Your task to perform on an android device: Toggle the flashlight Image 0: 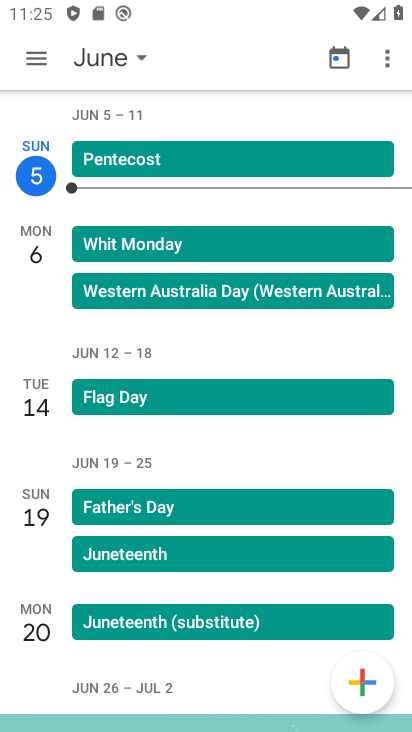
Step 0: press home button
Your task to perform on an android device: Toggle the flashlight Image 1: 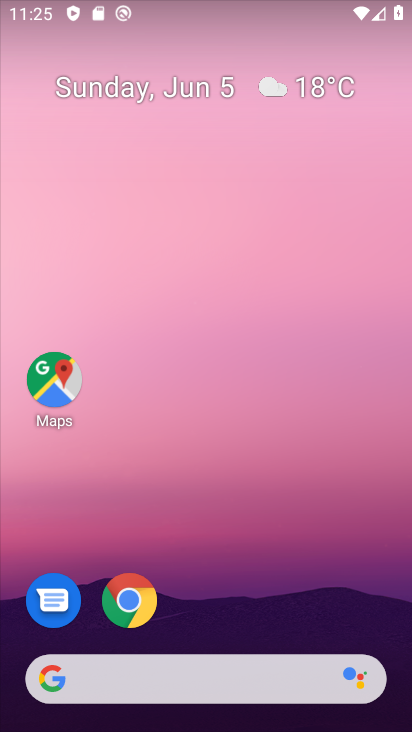
Step 1: drag from (187, 4) to (141, 454)
Your task to perform on an android device: Toggle the flashlight Image 2: 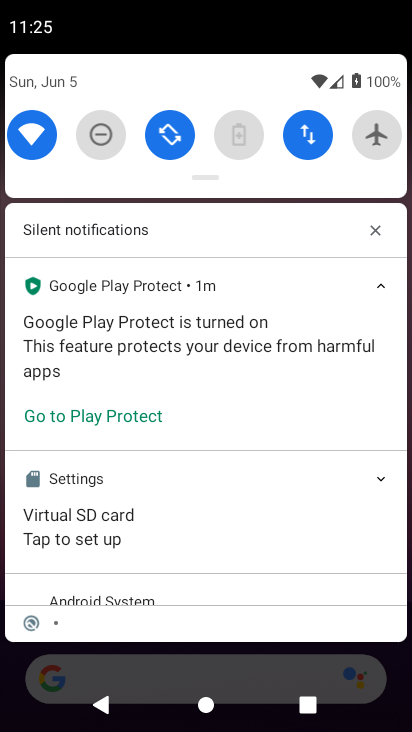
Step 2: drag from (208, 187) to (250, 514)
Your task to perform on an android device: Toggle the flashlight Image 3: 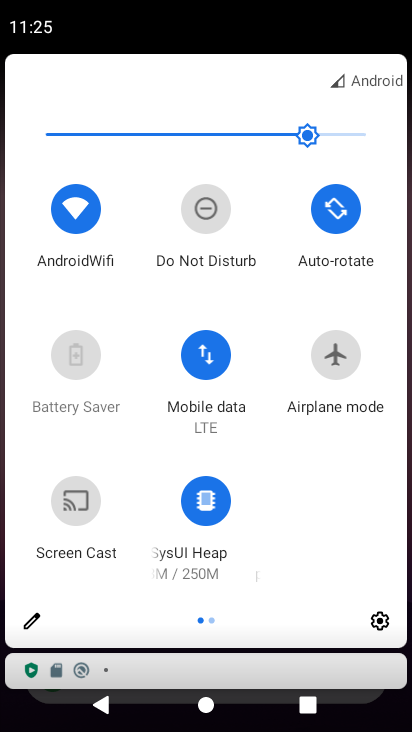
Step 3: click (43, 620)
Your task to perform on an android device: Toggle the flashlight Image 4: 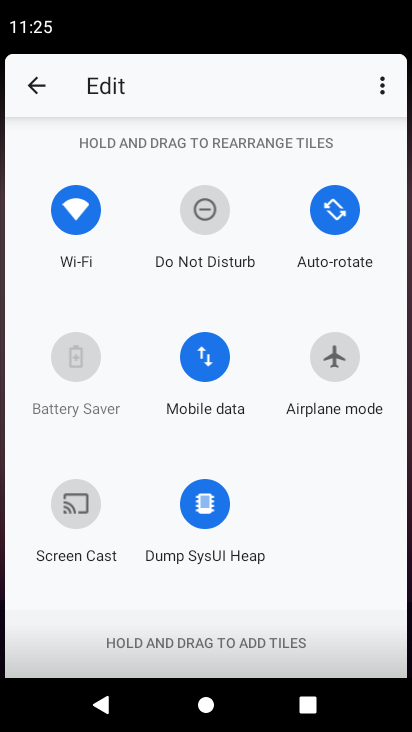
Step 4: task complete